Your task to perform on an android device: Go to eBay Image 0: 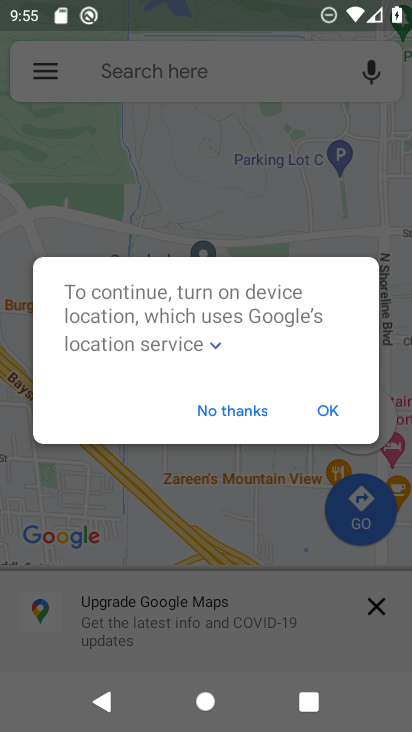
Step 0: press home button
Your task to perform on an android device: Go to eBay Image 1: 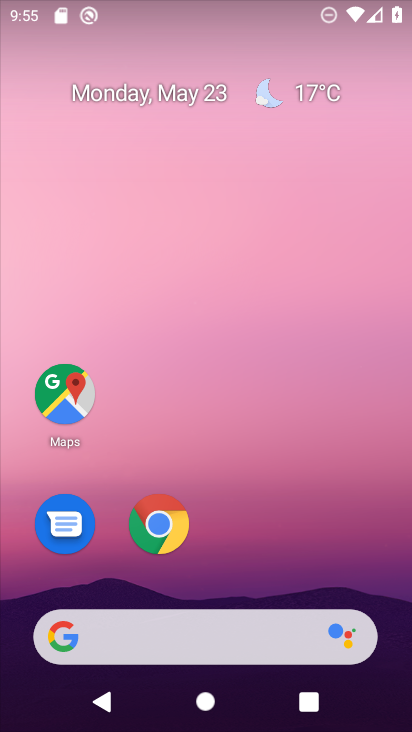
Step 1: click (179, 538)
Your task to perform on an android device: Go to eBay Image 2: 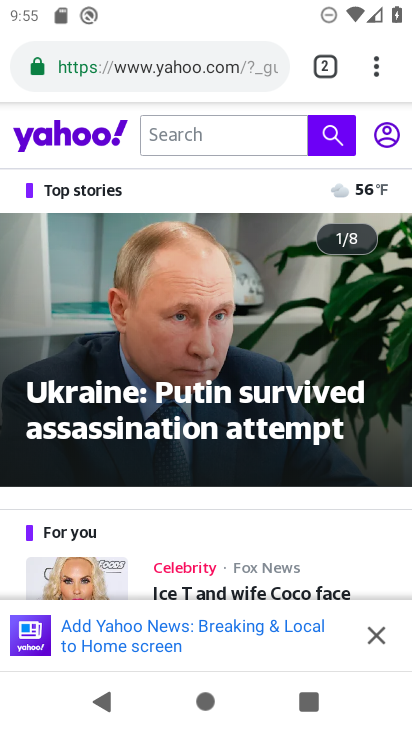
Step 2: click (318, 68)
Your task to perform on an android device: Go to eBay Image 3: 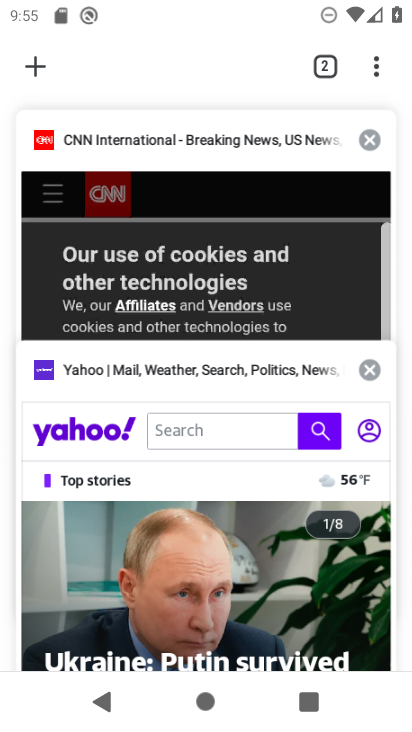
Step 3: click (43, 67)
Your task to perform on an android device: Go to eBay Image 4: 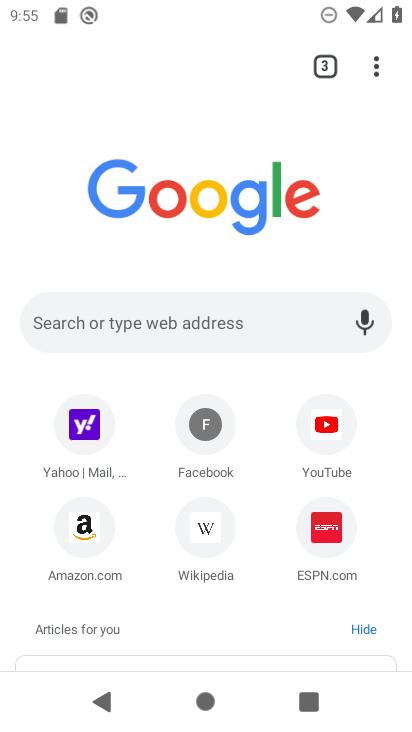
Step 4: click (181, 319)
Your task to perform on an android device: Go to eBay Image 5: 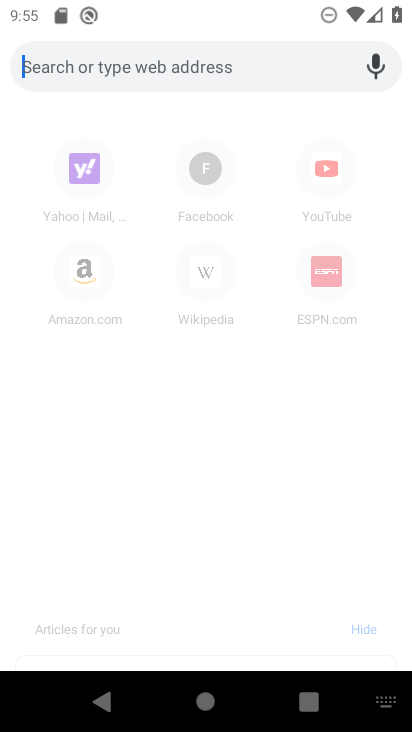
Step 5: type "eBay"
Your task to perform on an android device: Go to eBay Image 6: 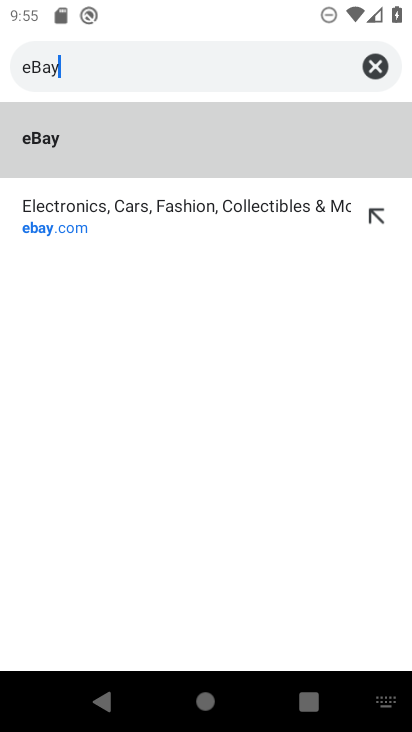
Step 6: click (227, 133)
Your task to perform on an android device: Go to eBay Image 7: 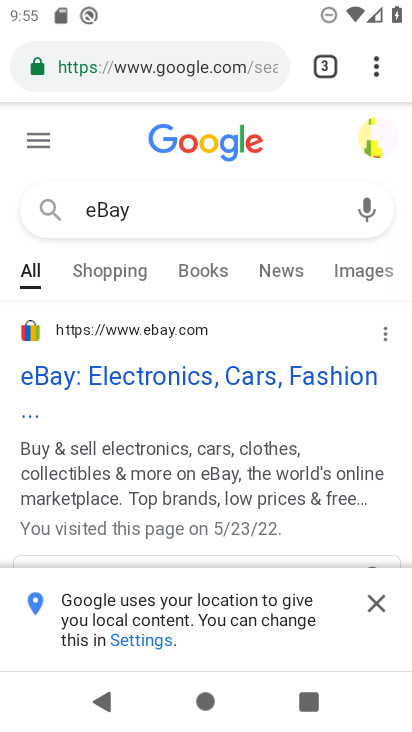
Step 7: click (124, 372)
Your task to perform on an android device: Go to eBay Image 8: 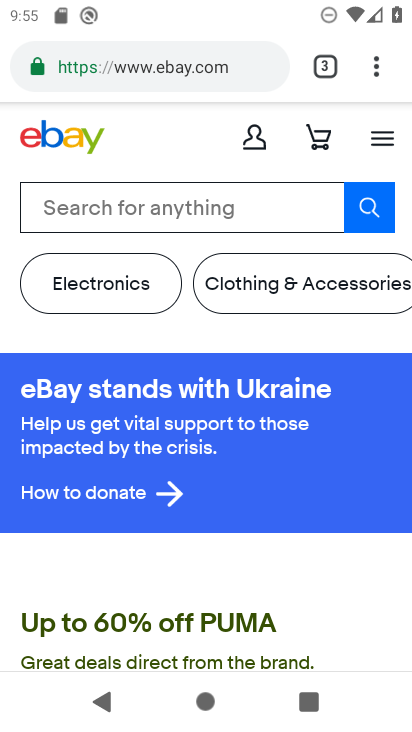
Step 8: task complete